Your task to perform on an android device: toggle translation in the chrome app Image 0: 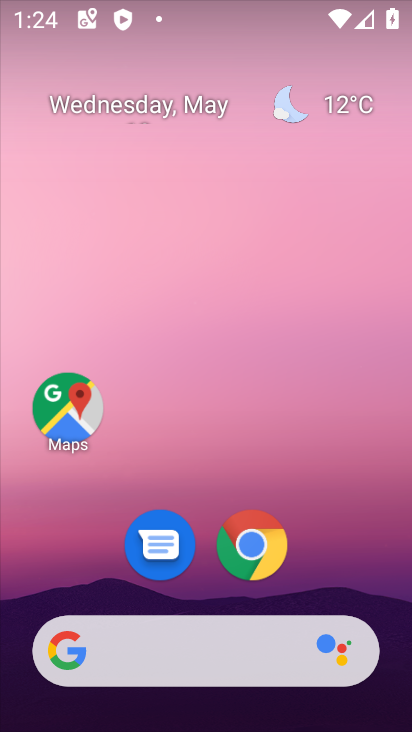
Step 0: click (262, 548)
Your task to perform on an android device: toggle translation in the chrome app Image 1: 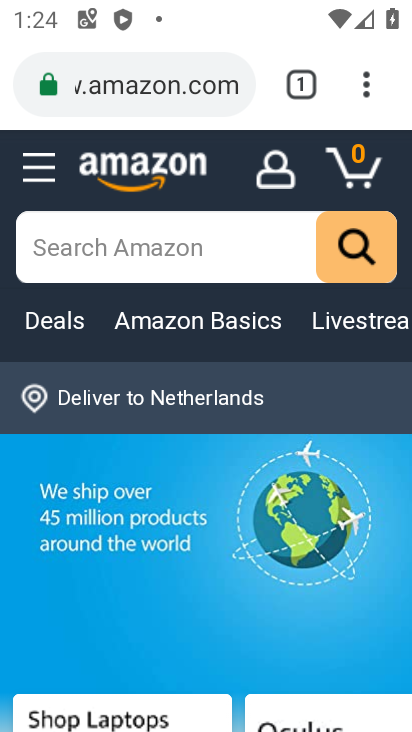
Step 1: click (371, 96)
Your task to perform on an android device: toggle translation in the chrome app Image 2: 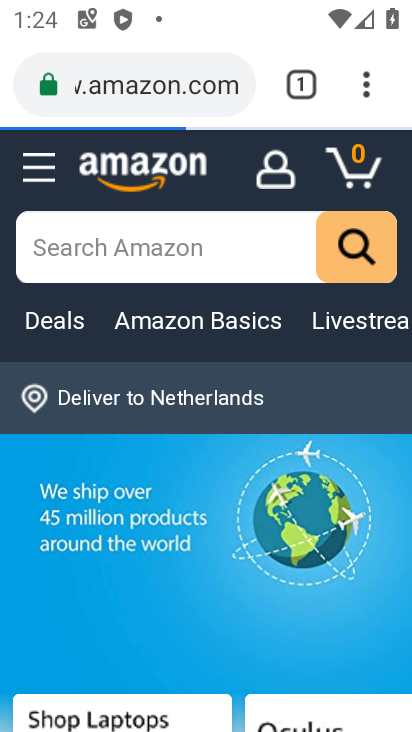
Step 2: click (371, 96)
Your task to perform on an android device: toggle translation in the chrome app Image 3: 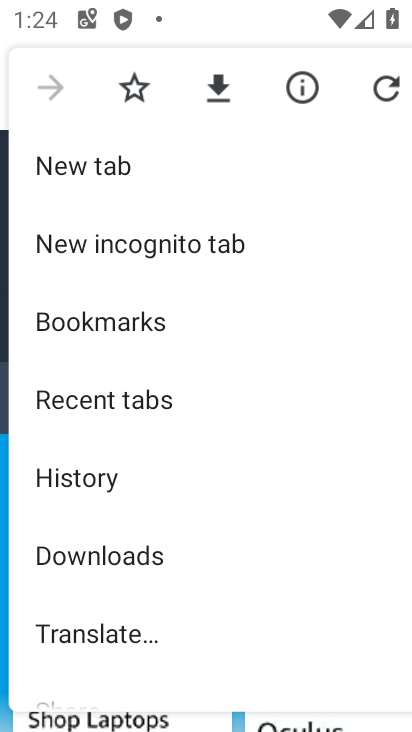
Step 3: drag from (164, 546) to (172, 230)
Your task to perform on an android device: toggle translation in the chrome app Image 4: 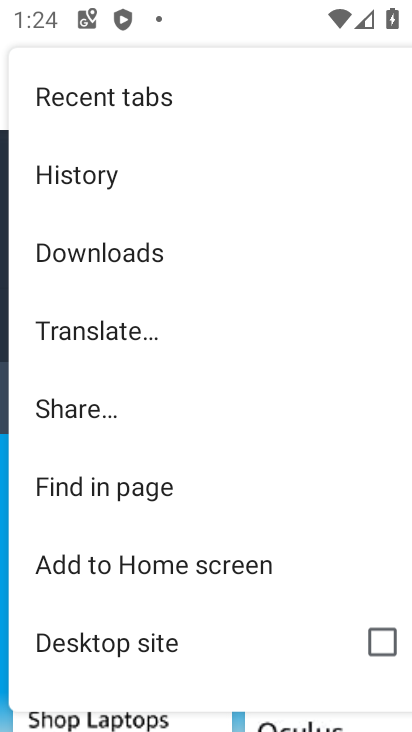
Step 4: drag from (203, 616) to (152, 201)
Your task to perform on an android device: toggle translation in the chrome app Image 5: 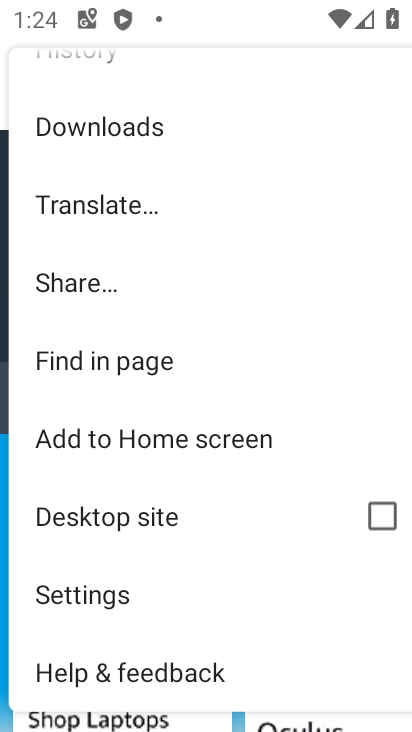
Step 5: click (107, 584)
Your task to perform on an android device: toggle translation in the chrome app Image 6: 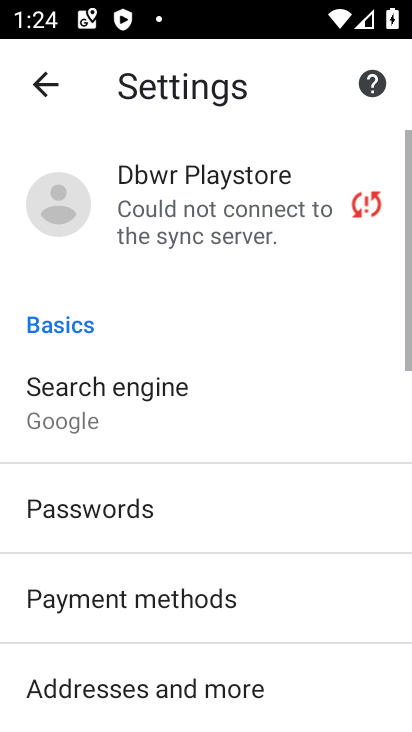
Step 6: drag from (192, 628) to (169, 230)
Your task to perform on an android device: toggle translation in the chrome app Image 7: 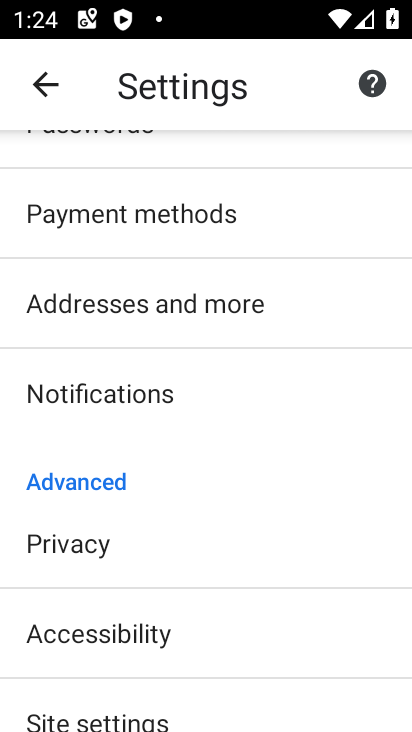
Step 7: drag from (143, 628) to (123, 274)
Your task to perform on an android device: toggle translation in the chrome app Image 8: 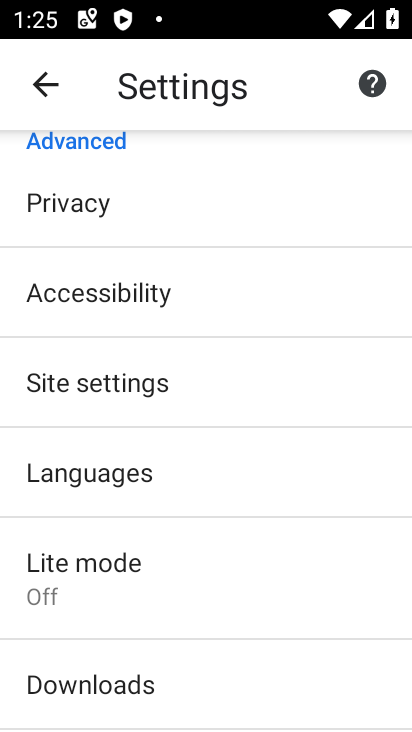
Step 8: click (108, 491)
Your task to perform on an android device: toggle translation in the chrome app Image 9: 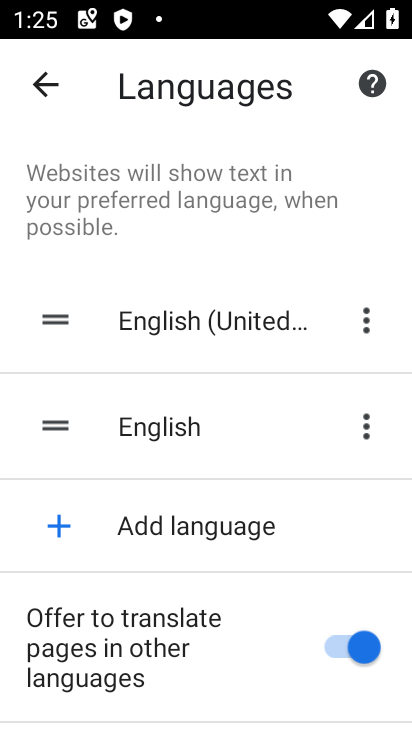
Step 9: click (356, 643)
Your task to perform on an android device: toggle translation in the chrome app Image 10: 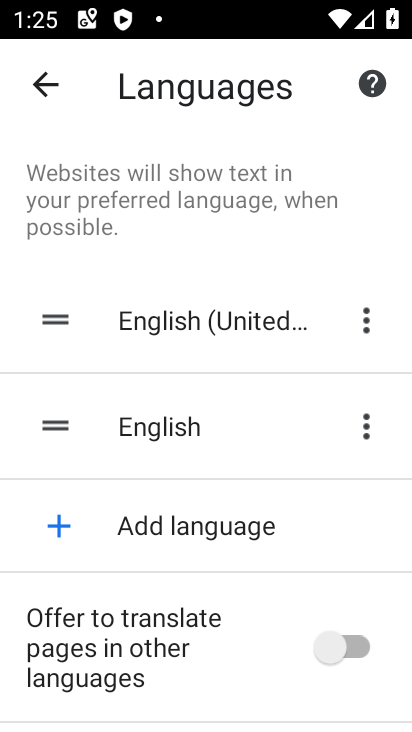
Step 10: task complete